Your task to perform on an android device: see creations saved in the google photos Image 0: 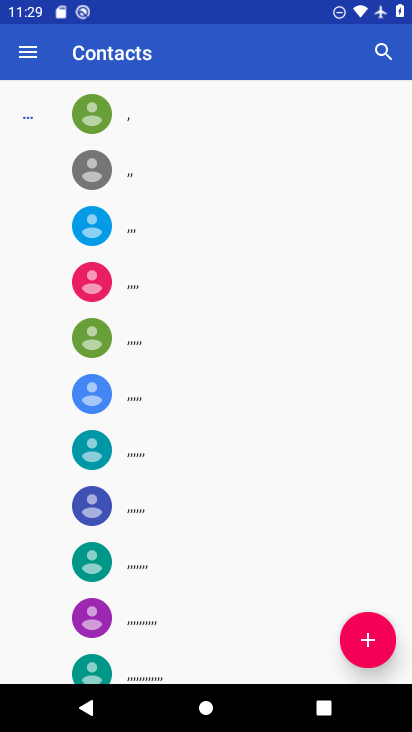
Step 0: press home button
Your task to perform on an android device: see creations saved in the google photos Image 1: 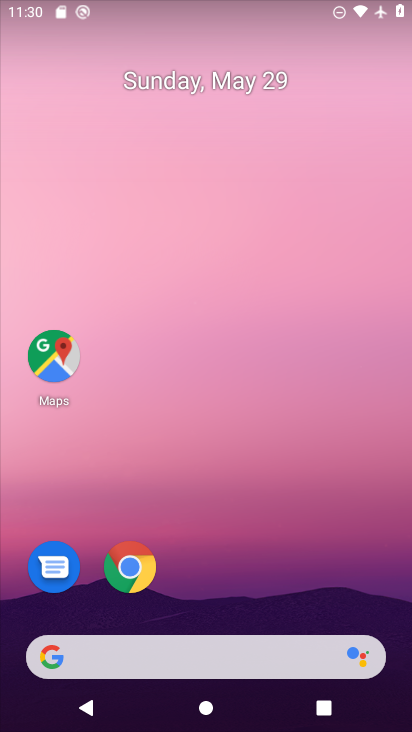
Step 1: drag from (381, 624) to (308, 126)
Your task to perform on an android device: see creations saved in the google photos Image 2: 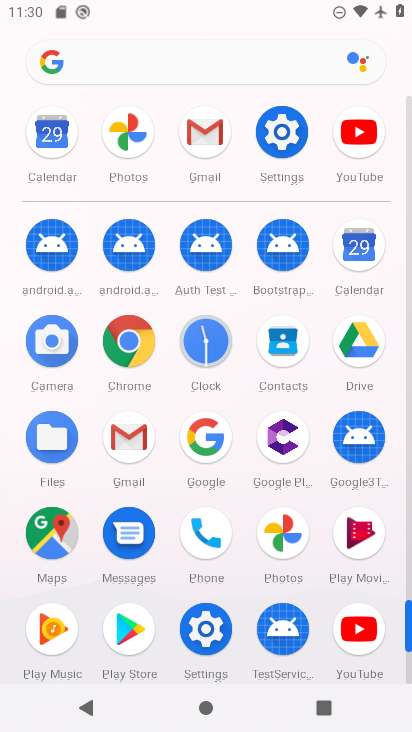
Step 2: click (408, 678)
Your task to perform on an android device: see creations saved in the google photos Image 3: 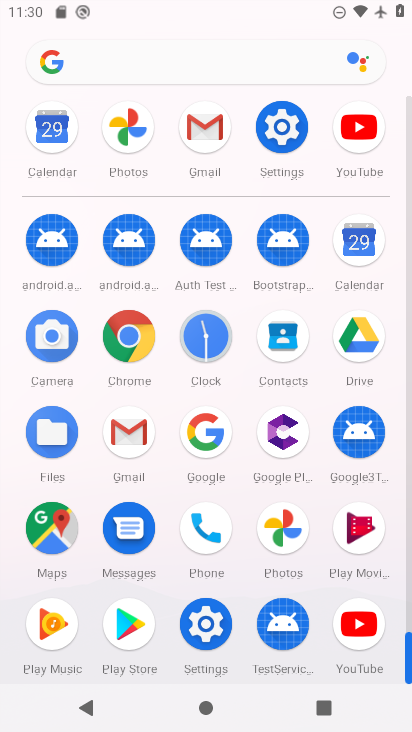
Step 3: click (282, 527)
Your task to perform on an android device: see creations saved in the google photos Image 4: 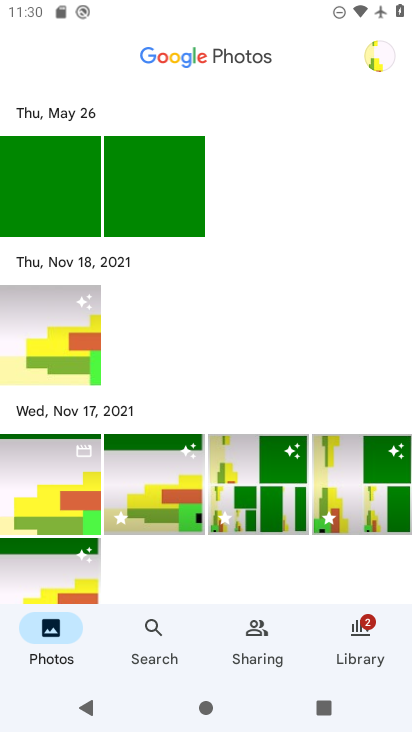
Step 4: task complete